Your task to perform on an android device: Go to location settings Image 0: 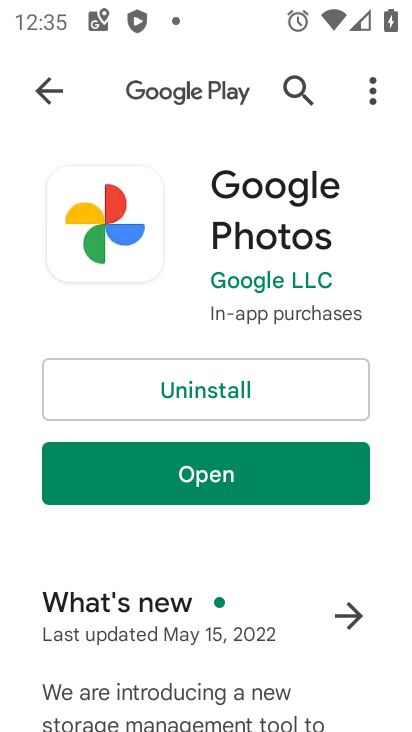
Step 0: press home button
Your task to perform on an android device: Go to location settings Image 1: 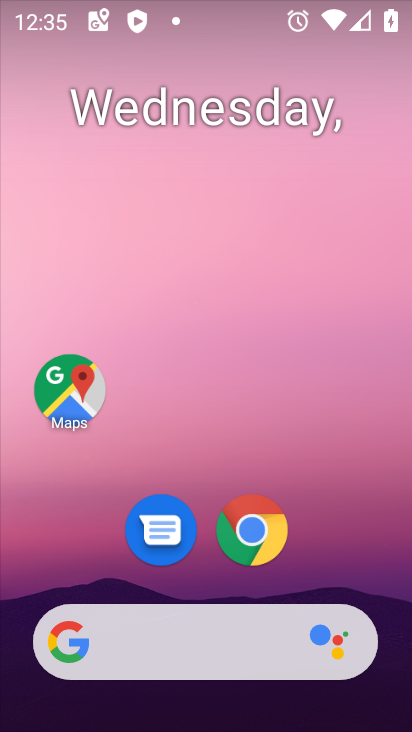
Step 1: drag from (228, 584) to (264, 270)
Your task to perform on an android device: Go to location settings Image 2: 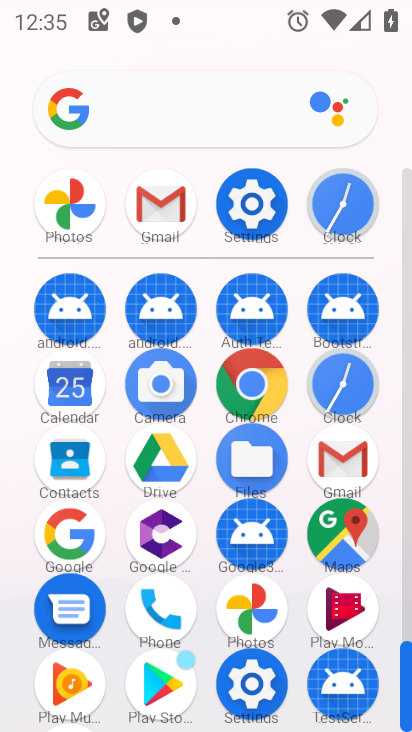
Step 2: click (251, 205)
Your task to perform on an android device: Go to location settings Image 3: 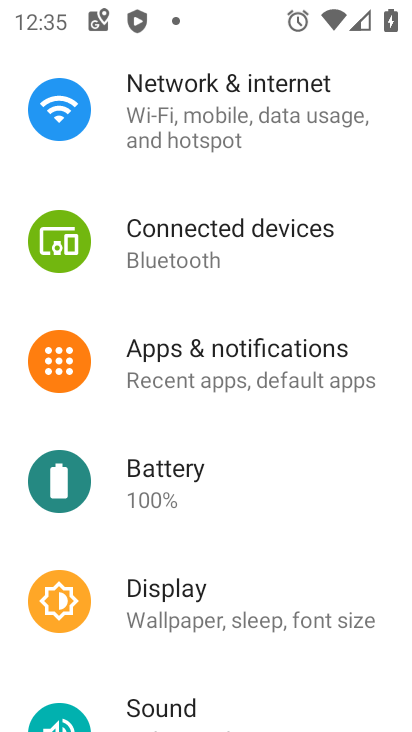
Step 3: drag from (222, 536) to (317, 150)
Your task to perform on an android device: Go to location settings Image 4: 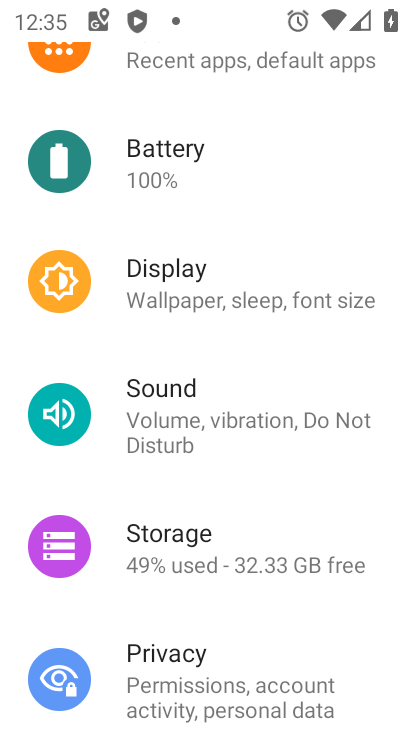
Step 4: drag from (207, 626) to (317, 305)
Your task to perform on an android device: Go to location settings Image 5: 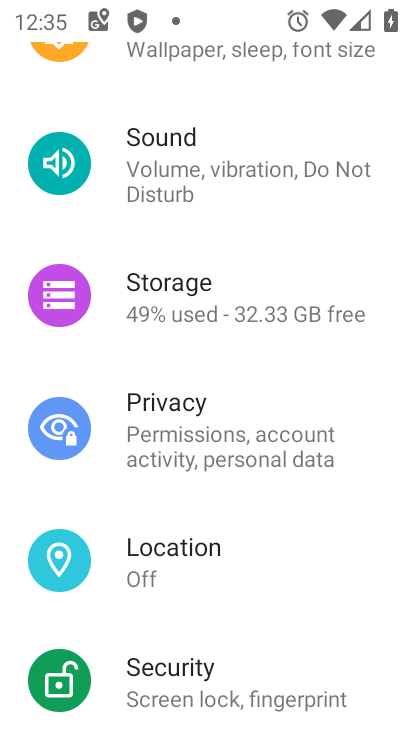
Step 5: click (154, 576)
Your task to perform on an android device: Go to location settings Image 6: 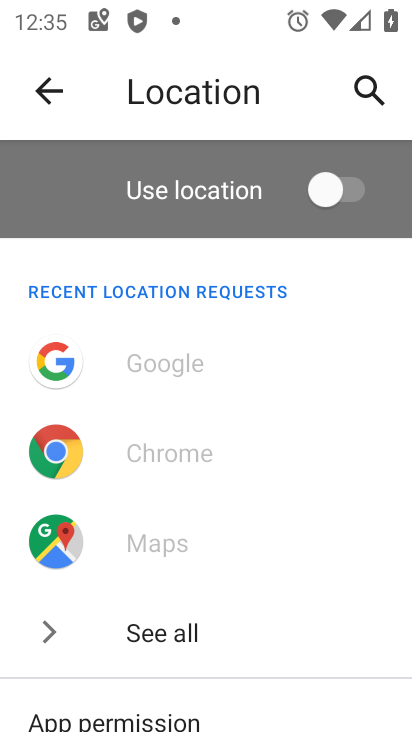
Step 6: task complete